Your task to perform on an android device: Go to display settings Image 0: 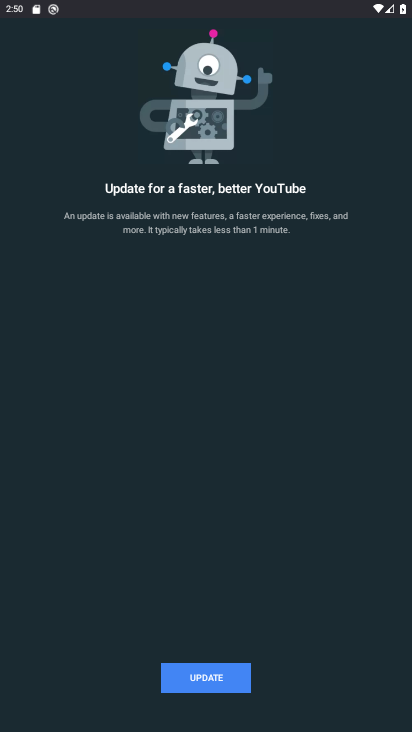
Step 0: press home button
Your task to perform on an android device: Go to display settings Image 1: 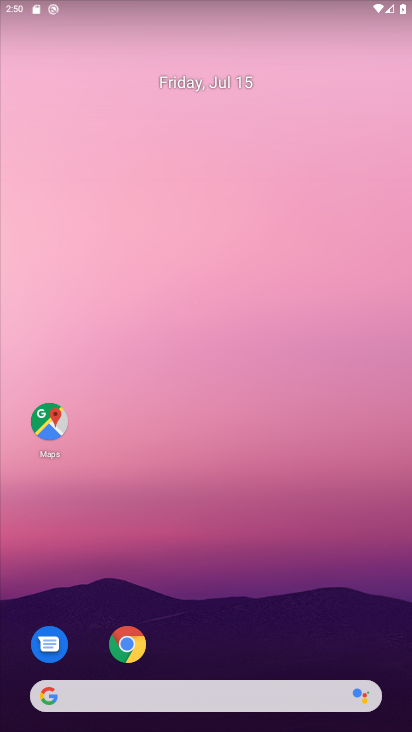
Step 1: drag from (181, 660) to (296, 10)
Your task to perform on an android device: Go to display settings Image 2: 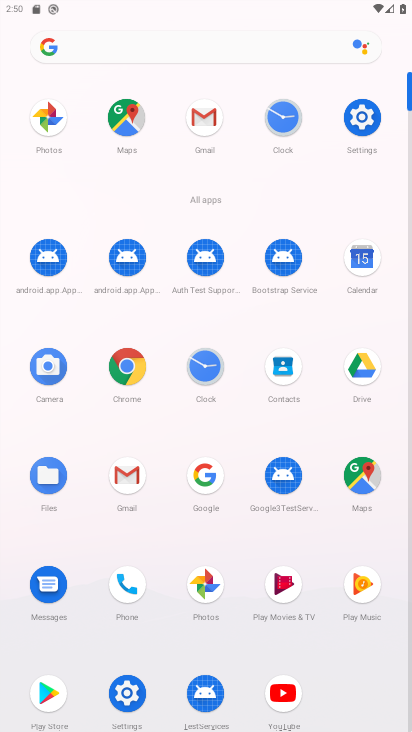
Step 2: click (361, 142)
Your task to perform on an android device: Go to display settings Image 3: 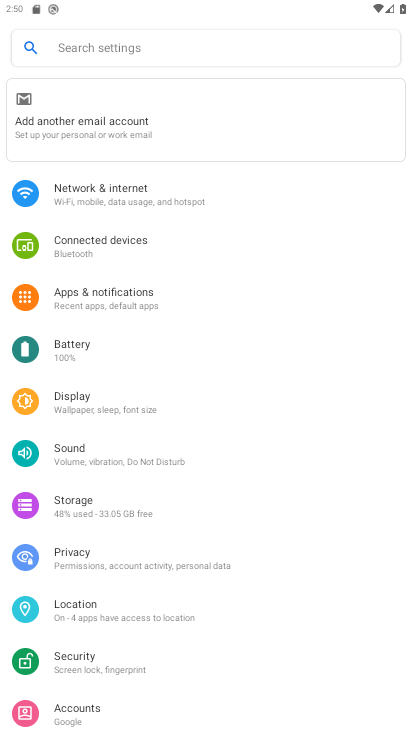
Step 3: click (115, 393)
Your task to perform on an android device: Go to display settings Image 4: 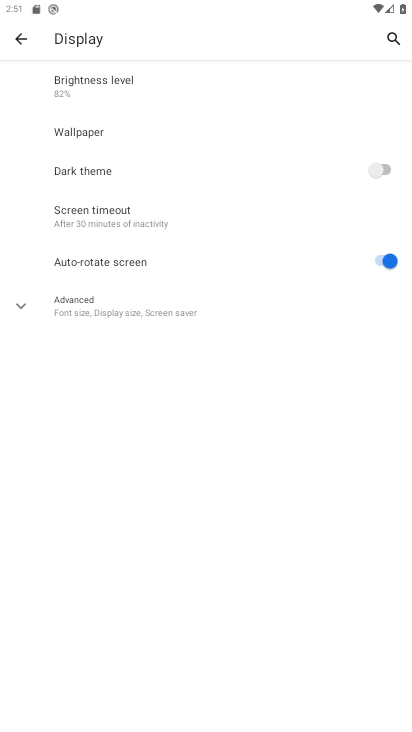
Step 4: task complete